Your task to perform on an android device: Show me popular games on the Play Store Image 0: 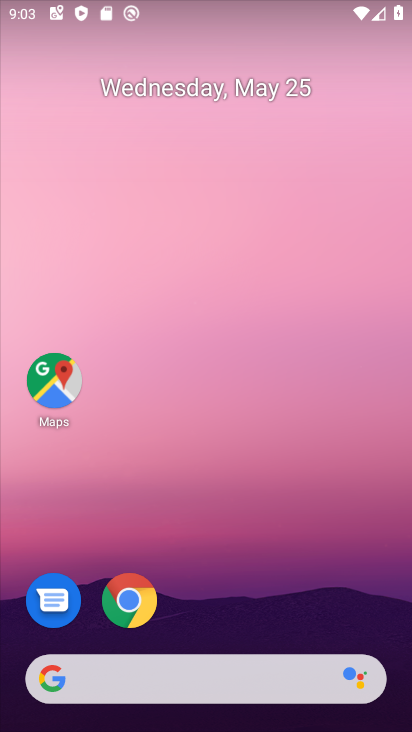
Step 0: drag from (241, 634) to (192, 34)
Your task to perform on an android device: Show me popular games on the Play Store Image 1: 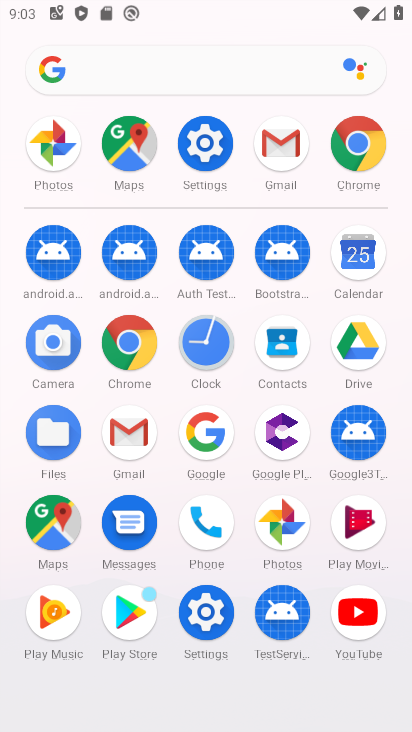
Step 1: drag from (6, 547) to (4, 245)
Your task to perform on an android device: Show me popular games on the Play Store Image 2: 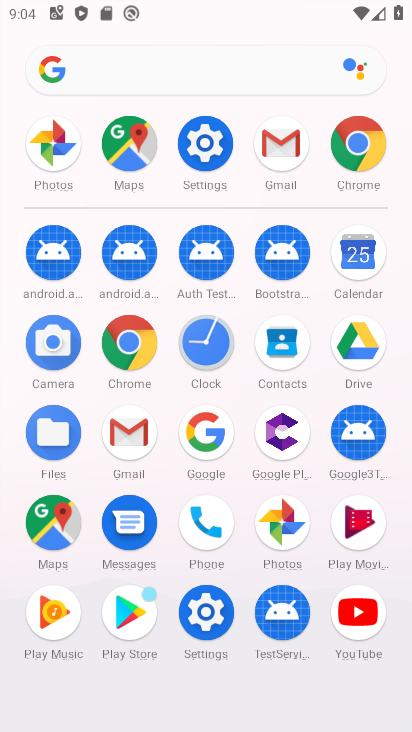
Step 2: drag from (2, 554) to (18, 244)
Your task to perform on an android device: Show me popular games on the Play Store Image 3: 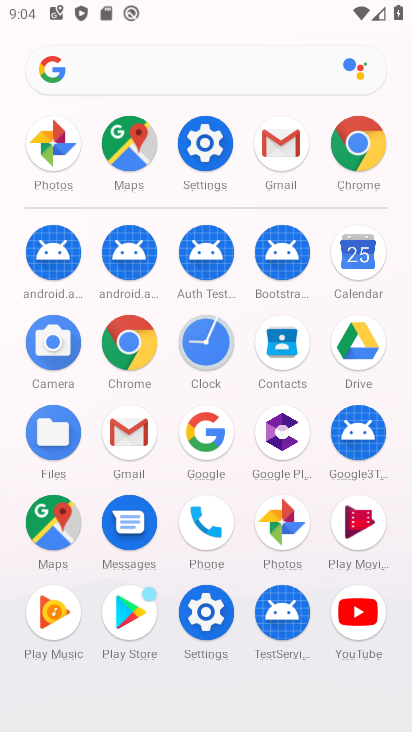
Step 3: click (127, 609)
Your task to perform on an android device: Show me popular games on the Play Store Image 4: 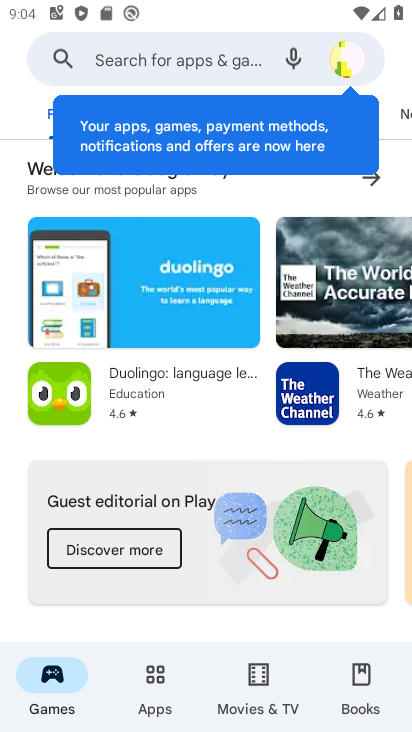
Step 4: task complete